Your task to perform on an android device: turn off translation in the chrome app Image 0: 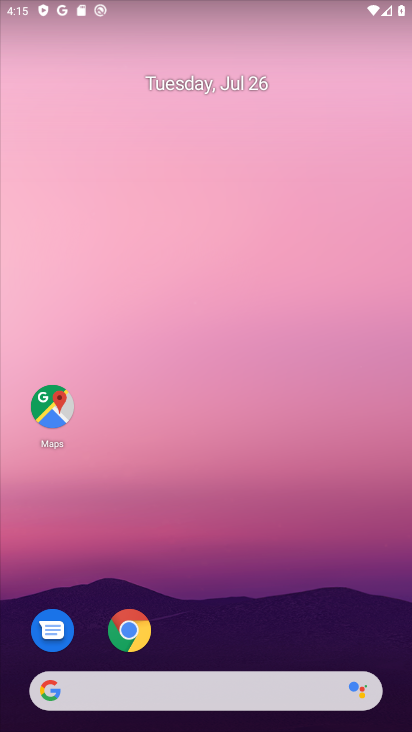
Step 0: drag from (273, 564) to (282, 1)
Your task to perform on an android device: turn off translation in the chrome app Image 1: 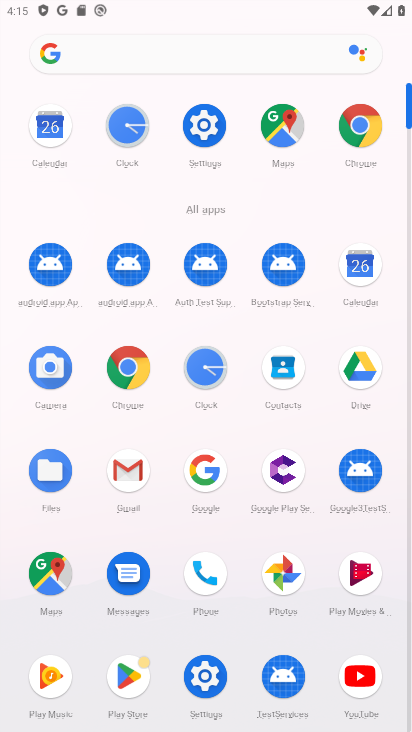
Step 1: click (360, 126)
Your task to perform on an android device: turn off translation in the chrome app Image 2: 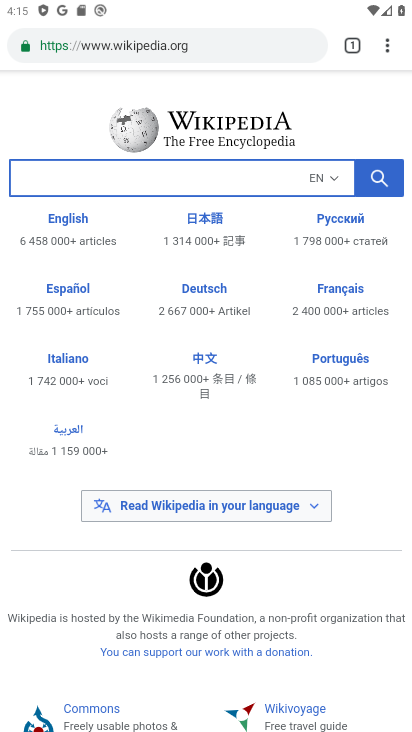
Step 2: drag from (394, 45) to (273, 551)
Your task to perform on an android device: turn off translation in the chrome app Image 3: 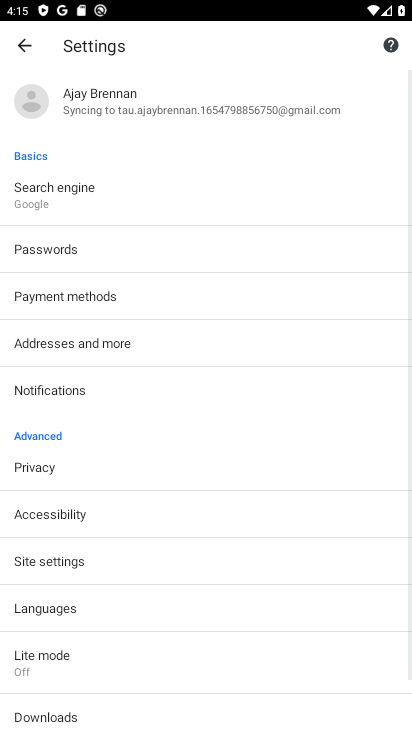
Step 3: drag from (262, 662) to (253, 106)
Your task to perform on an android device: turn off translation in the chrome app Image 4: 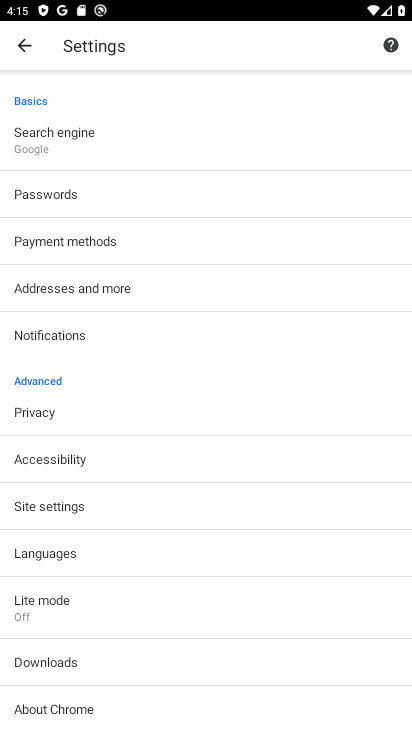
Step 4: click (67, 557)
Your task to perform on an android device: turn off translation in the chrome app Image 5: 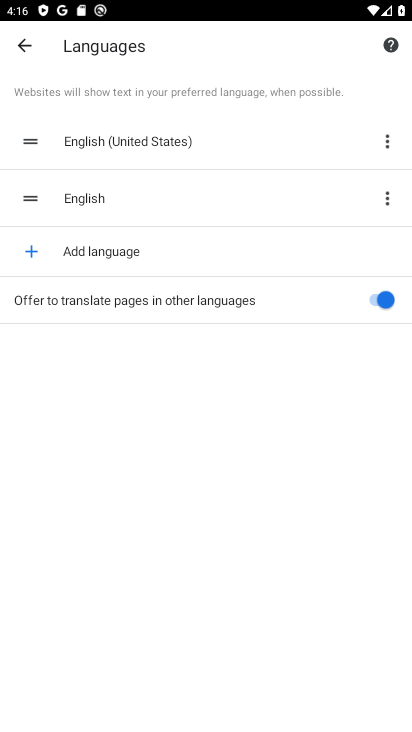
Step 5: click (378, 300)
Your task to perform on an android device: turn off translation in the chrome app Image 6: 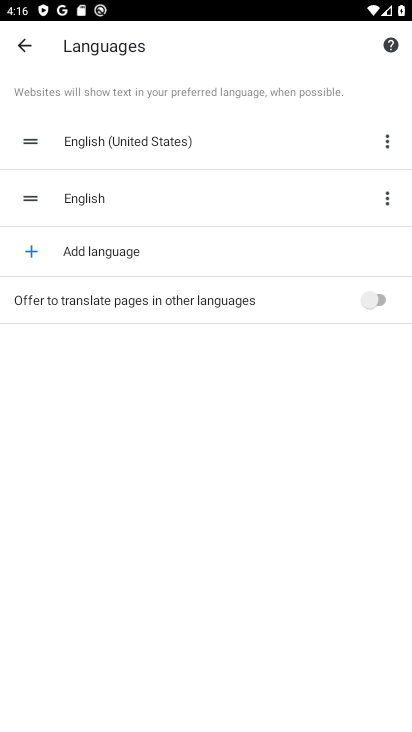
Step 6: task complete